Your task to perform on an android device: read, delete, or share a saved page in the chrome app Image 0: 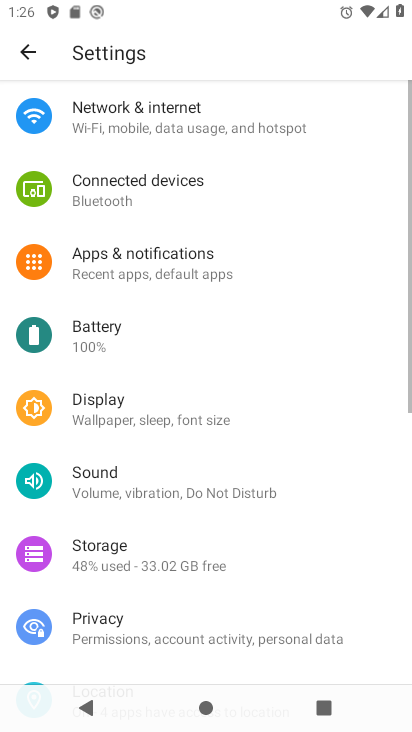
Step 0: press home button
Your task to perform on an android device: read, delete, or share a saved page in the chrome app Image 1: 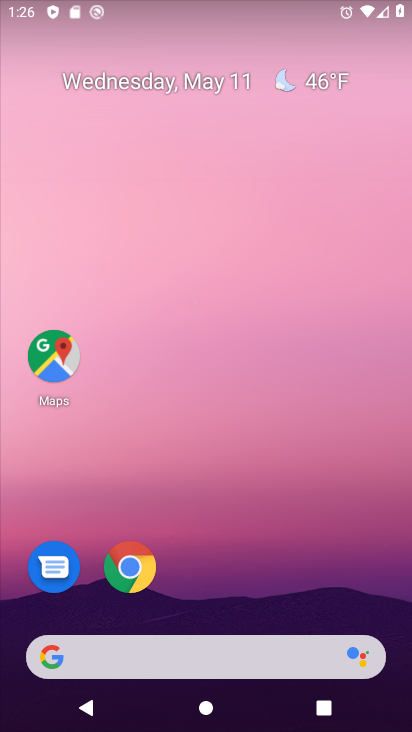
Step 1: click (136, 560)
Your task to perform on an android device: read, delete, or share a saved page in the chrome app Image 2: 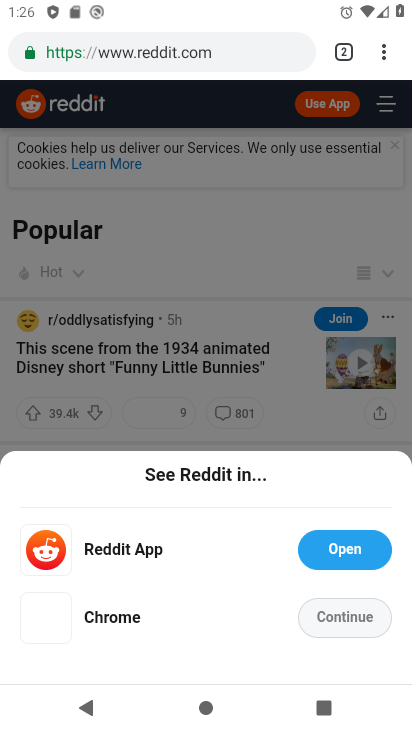
Step 2: click (386, 51)
Your task to perform on an android device: read, delete, or share a saved page in the chrome app Image 3: 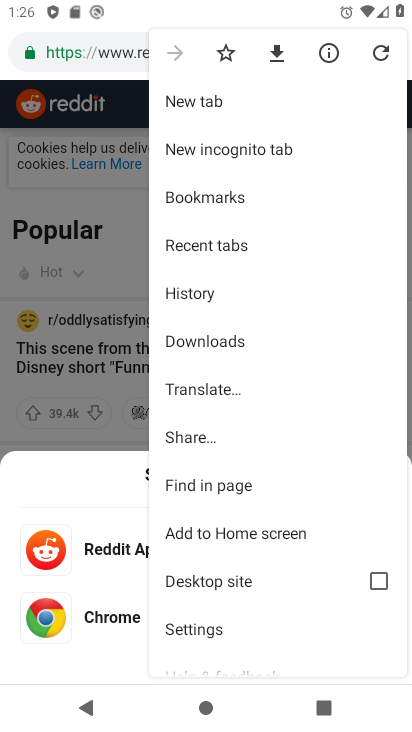
Step 3: click (218, 633)
Your task to perform on an android device: read, delete, or share a saved page in the chrome app Image 4: 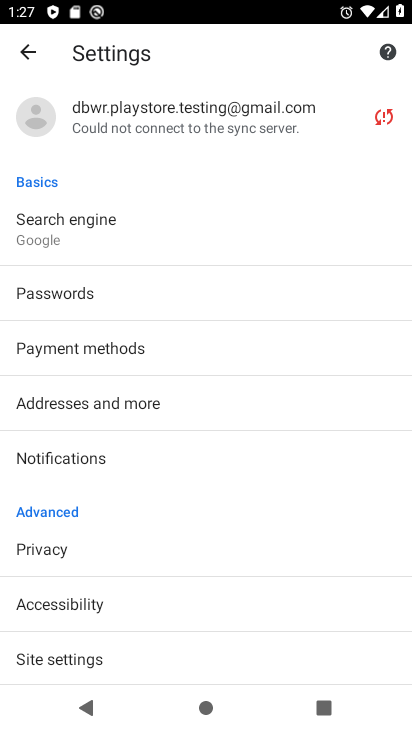
Step 4: click (5, 41)
Your task to perform on an android device: read, delete, or share a saved page in the chrome app Image 5: 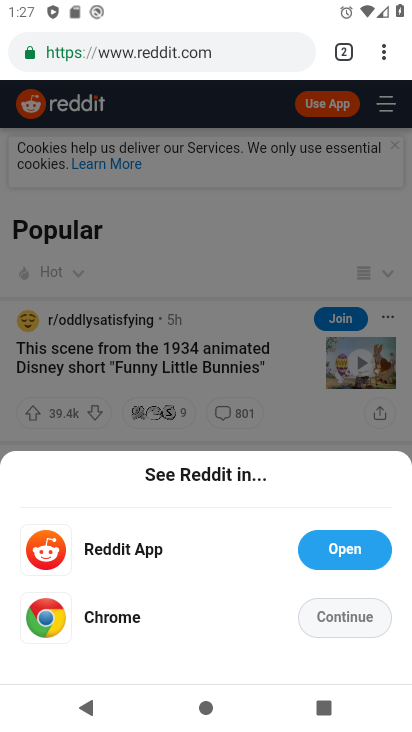
Step 5: click (389, 45)
Your task to perform on an android device: read, delete, or share a saved page in the chrome app Image 6: 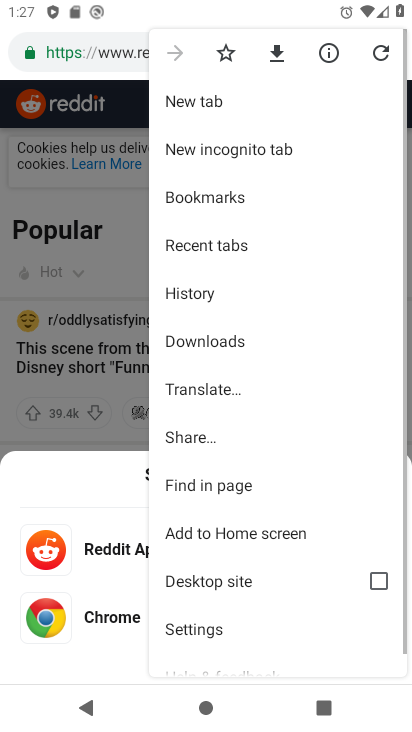
Step 6: click (237, 350)
Your task to perform on an android device: read, delete, or share a saved page in the chrome app Image 7: 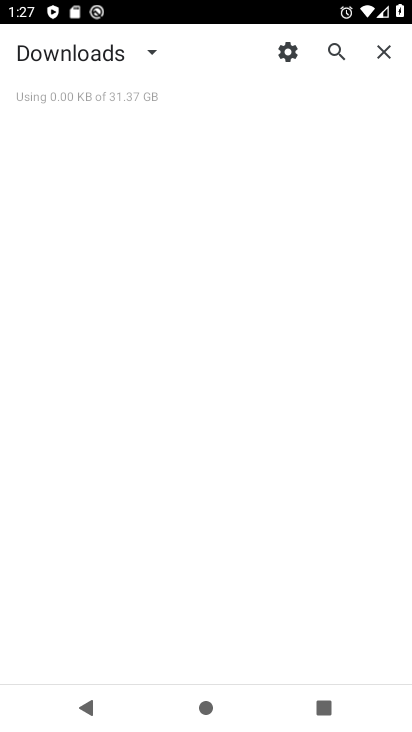
Step 7: task complete